Your task to perform on an android device: Open Youtube and go to the subscriptions tab Image 0: 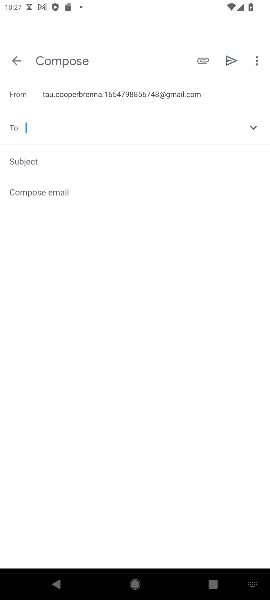
Step 0: press home button
Your task to perform on an android device: Open Youtube and go to the subscriptions tab Image 1: 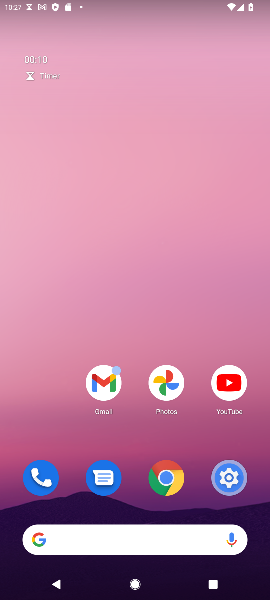
Step 1: drag from (129, 383) to (125, 102)
Your task to perform on an android device: Open Youtube and go to the subscriptions tab Image 2: 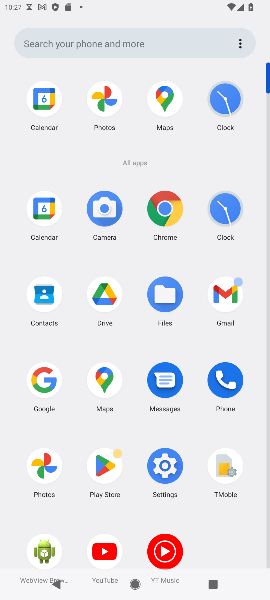
Step 2: click (104, 546)
Your task to perform on an android device: Open Youtube and go to the subscriptions tab Image 3: 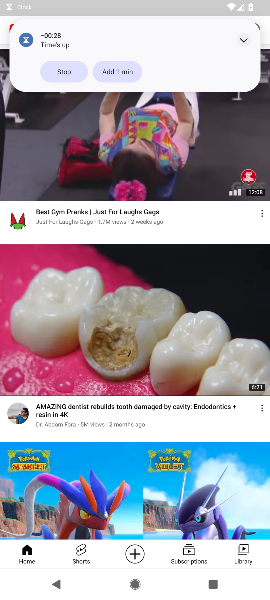
Step 3: click (188, 554)
Your task to perform on an android device: Open Youtube and go to the subscriptions tab Image 4: 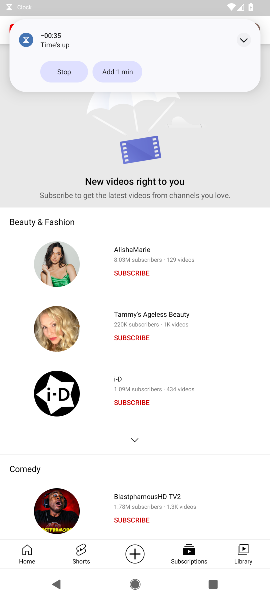
Step 4: task complete